Your task to perform on an android device: create a new album in the google photos Image 0: 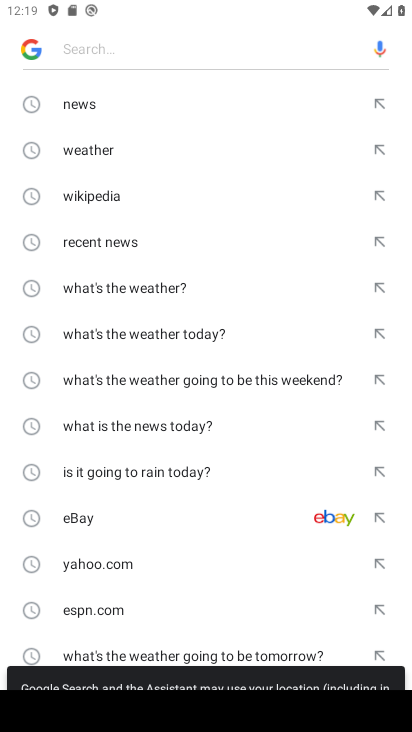
Step 0: press home button
Your task to perform on an android device: create a new album in the google photos Image 1: 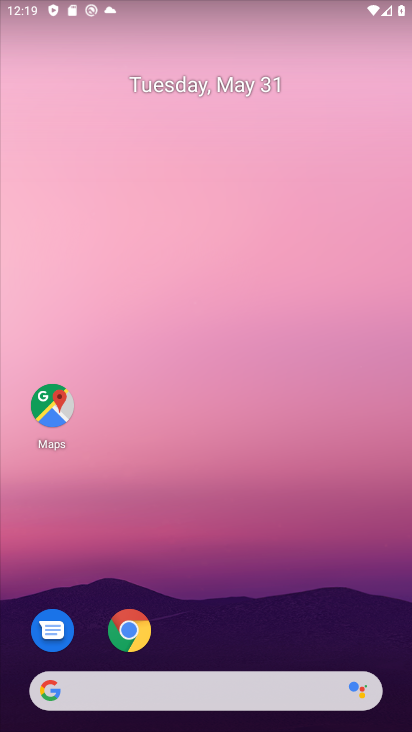
Step 1: drag from (192, 591) to (232, 213)
Your task to perform on an android device: create a new album in the google photos Image 2: 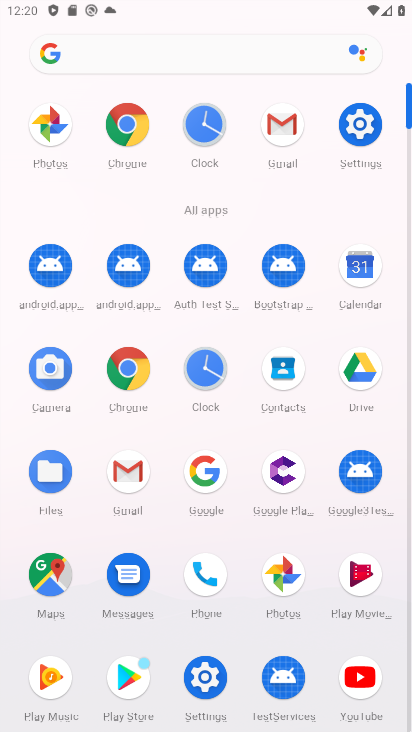
Step 2: click (53, 125)
Your task to perform on an android device: create a new album in the google photos Image 3: 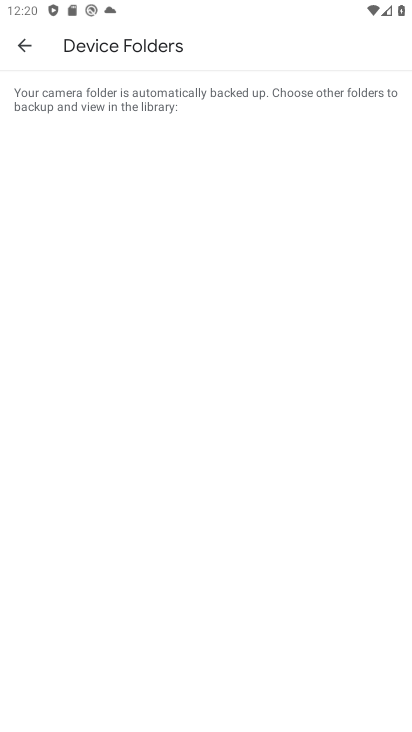
Step 3: press home button
Your task to perform on an android device: create a new album in the google photos Image 4: 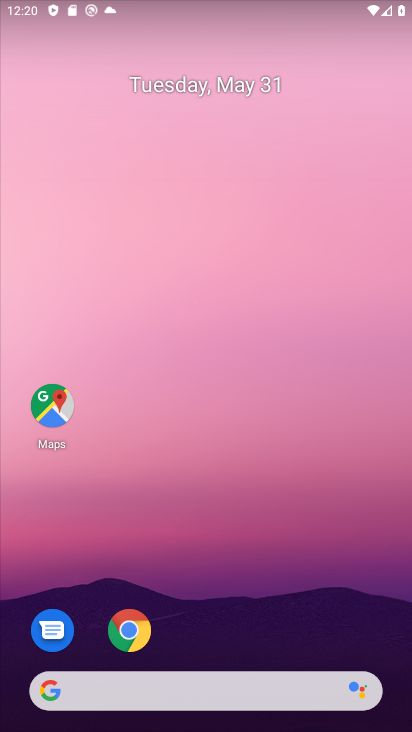
Step 4: drag from (210, 646) to (257, 270)
Your task to perform on an android device: create a new album in the google photos Image 5: 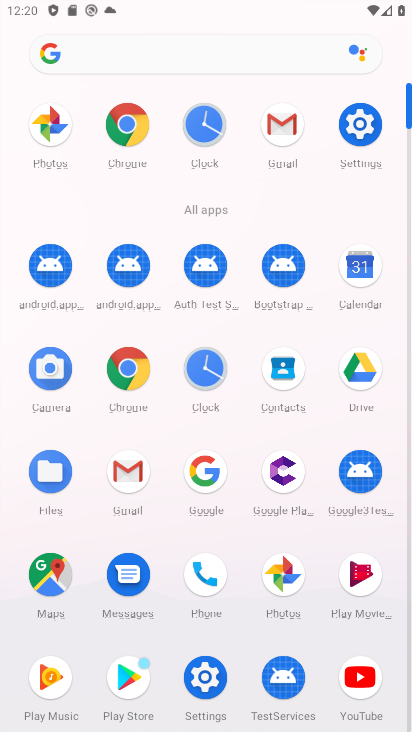
Step 5: click (286, 575)
Your task to perform on an android device: create a new album in the google photos Image 6: 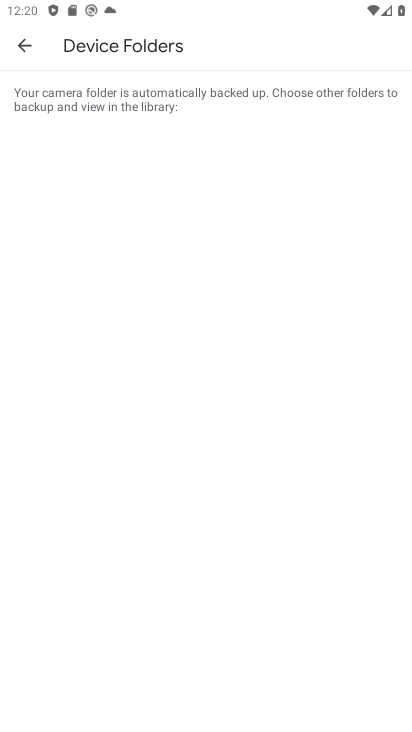
Step 6: click (28, 48)
Your task to perform on an android device: create a new album in the google photos Image 7: 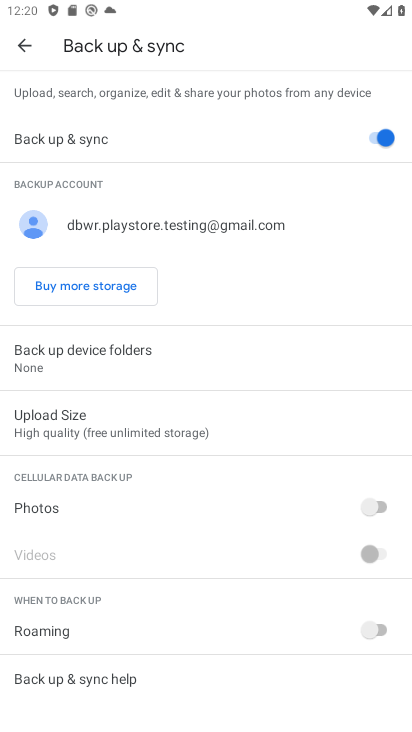
Step 7: click (24, 44)
Your task to perform on an android device: create a new album in the google photos Image 8: 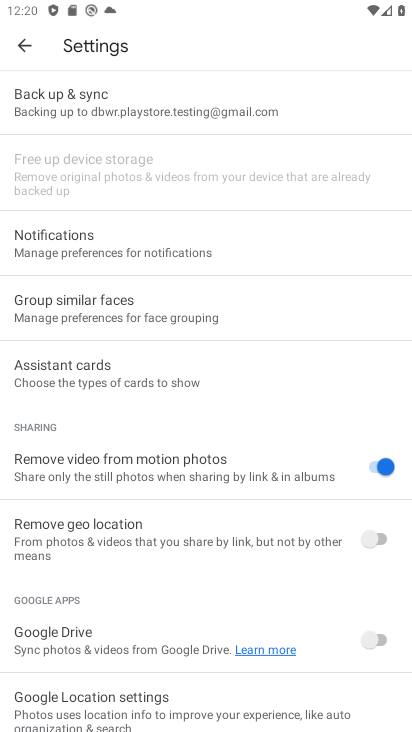
Step 8: click (63, 27)
Your task to perform on an android device: create a new album in the google photos Image 9: 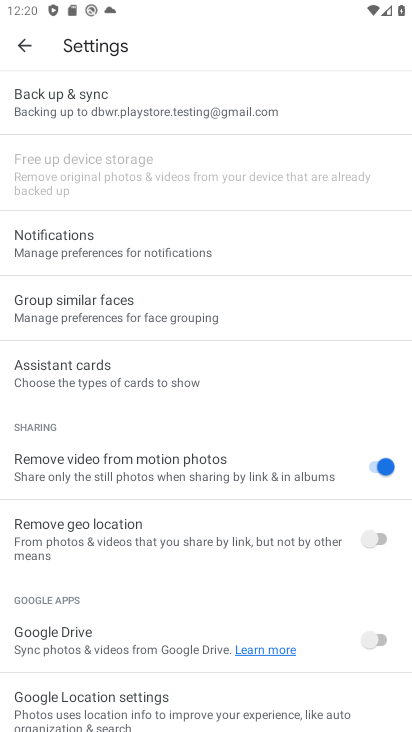
Step 9: click (26, 44)
Your task to perform on an android device: create a new album in the google photos Image 10: 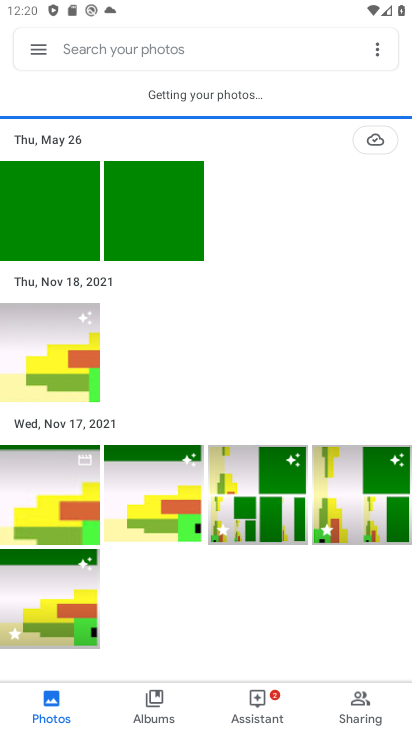
Step 10: click (155, 700)
Your task to perform on an android device: create a new album in the google photos Image 11: 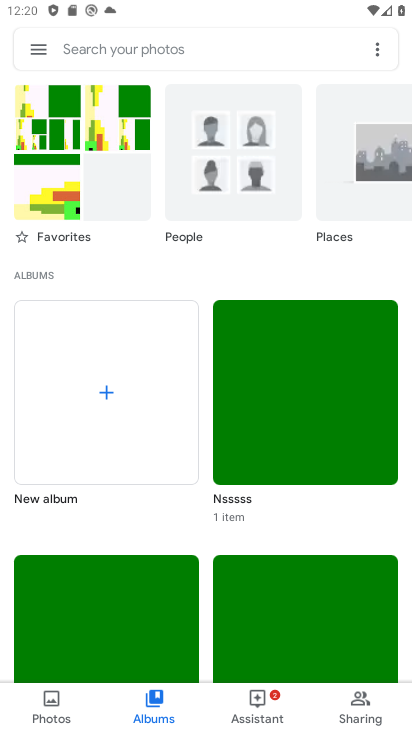
Step 11: click (108, 385)
Your task to perform on an android device: create a new album in the google photos Image 12: 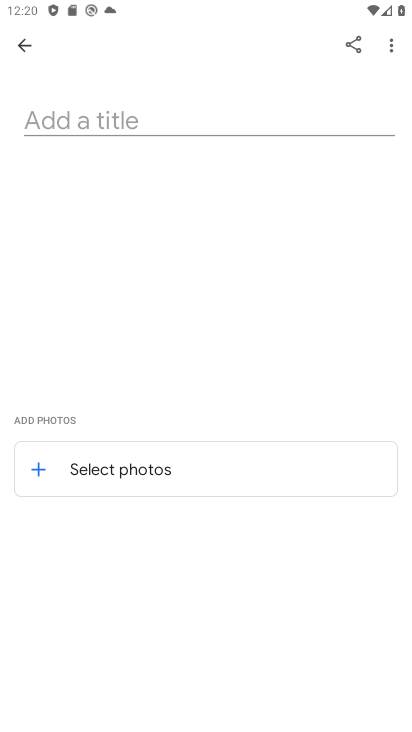
Step 12: click (59, 122)
Your task to perform on an android device: create a new album in the google photos Image 13: 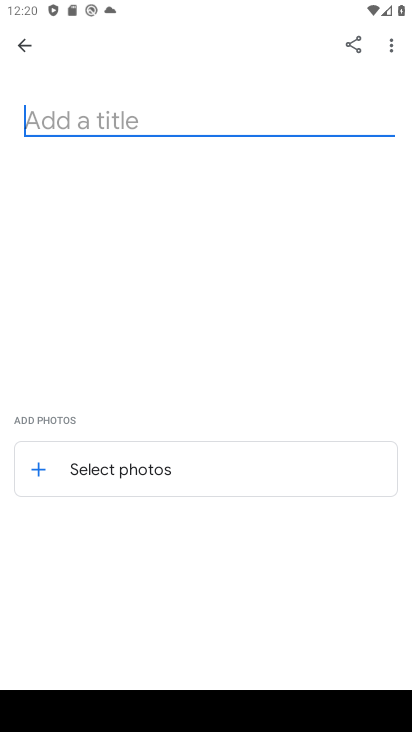
Step 13: type "uhiiuj"
Your task to perform on an android device: create a new album in the google photos Image 14: 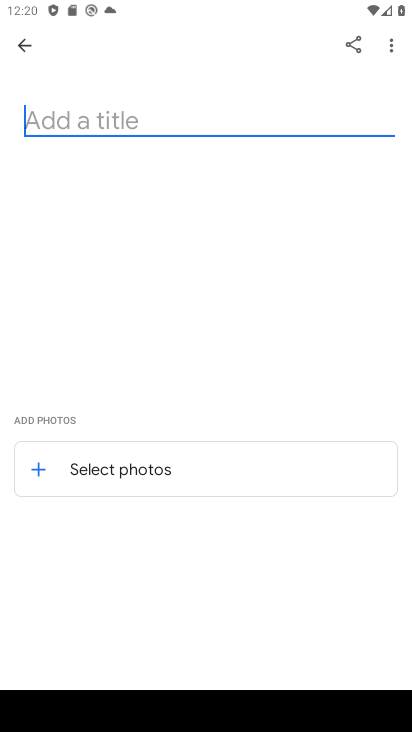
Step 14: click (51, 481)
Your task to perform on an android device: create a new album in the google photos Image 15: 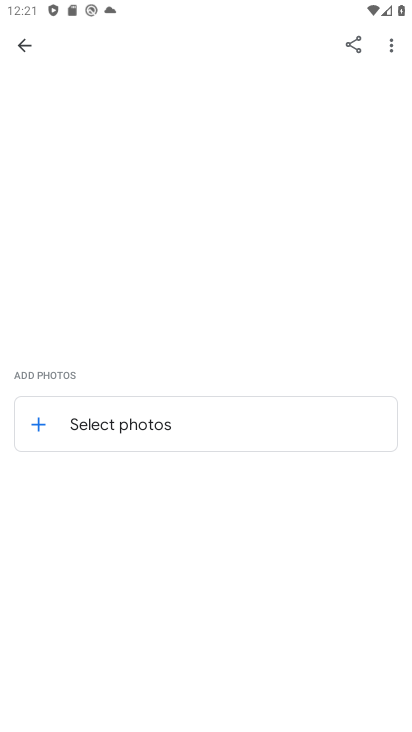
Step 15: click (69, 424)
Your task to perform on an android device: create a new album in the google photos Image 16: 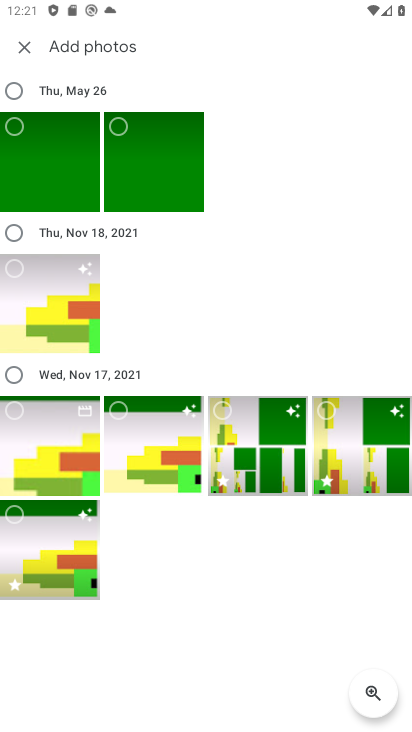
Step 16: click (10, 132)
Your task to perform on an android device: create a new album in the google photos Image 17: 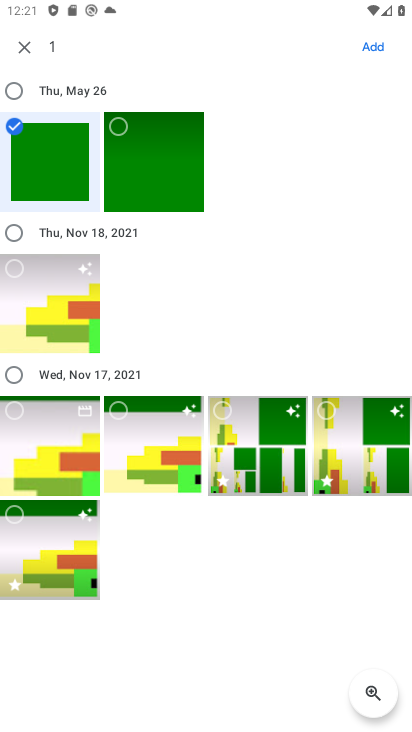
Step 17: click (20, 274)
Your task to perform on an android device: create a new album in the google photos Image 18: 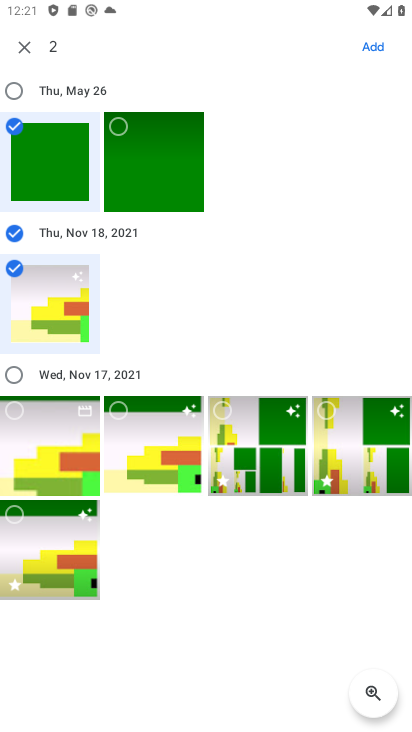
Step 18: click (374, 48)
Your task to perform on an android device: create a new album in the google photos Image 19: 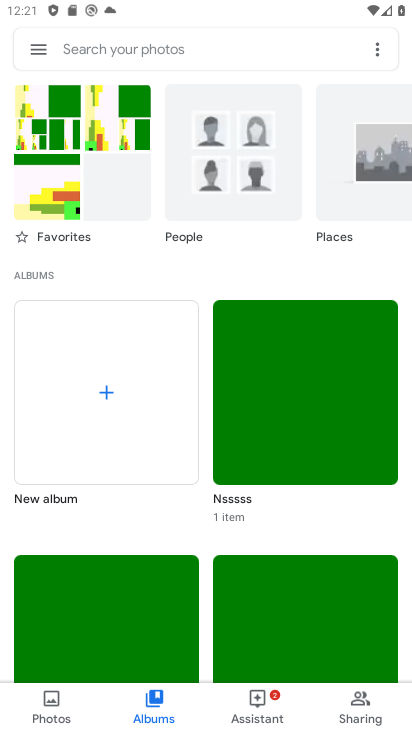
Step 19: task complete